Your task to perform on an android device: Show the shopping cart on target. Image 0: 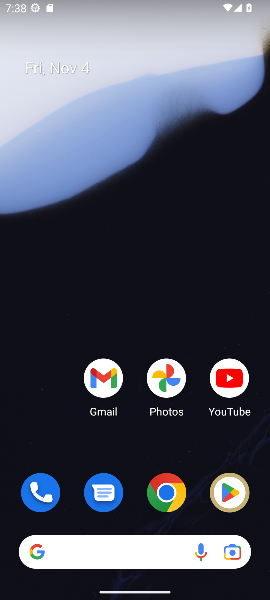
Step 0: drag from (138, 452) to (119, 63)
Your task to perform on an android device: Show the shopping cart on target. Image 1: 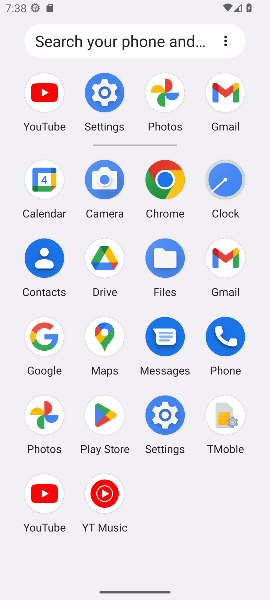
Step 1: click (168, 180)
Your task to perform on an android device: Show the shopping cart on target. Image 2: 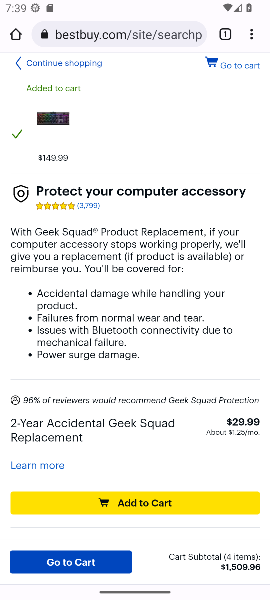
Step 2: click (122, 36)
Your task to perform on an android device: Show the shopping cart on target. Image 3: 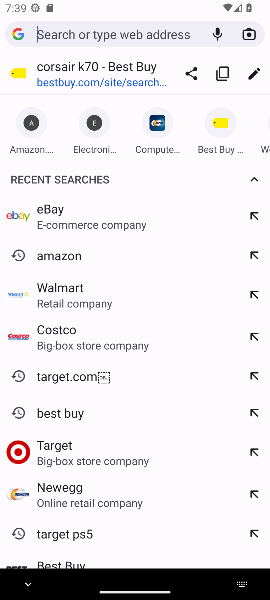
Step 3: type "target.com"
Your task to perform on an android device: Show the shopping cart on target. Image 4: 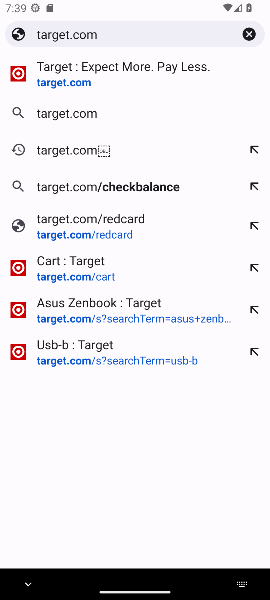
Step 4: press enter
Your task to perform on an android device: Show the shopping cart on target. Image 5: 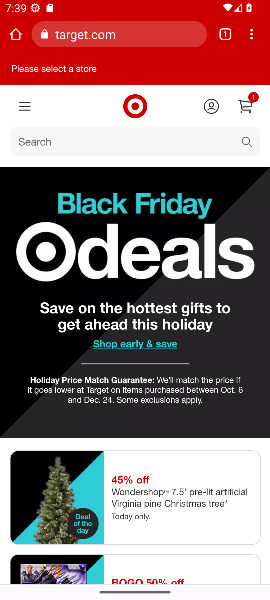
Step 5: click (248, 100)
Your task to perform on an android device: Show the shopping cart on target. Image 6: 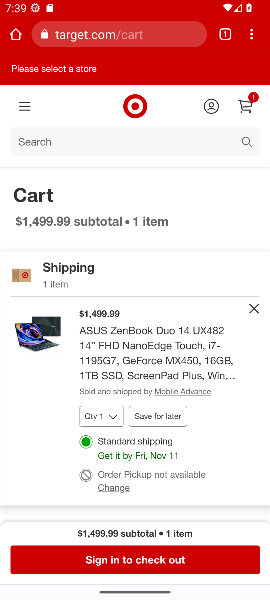
Step 6: task complete